Your task to perform on an android device: set the stopwatch Image 0: 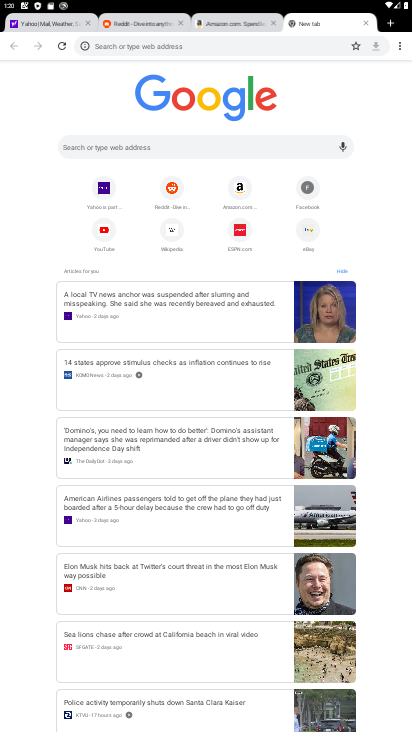
Step 0: press home button
Your task to perform on an android device: set the stopwatch Image 1: 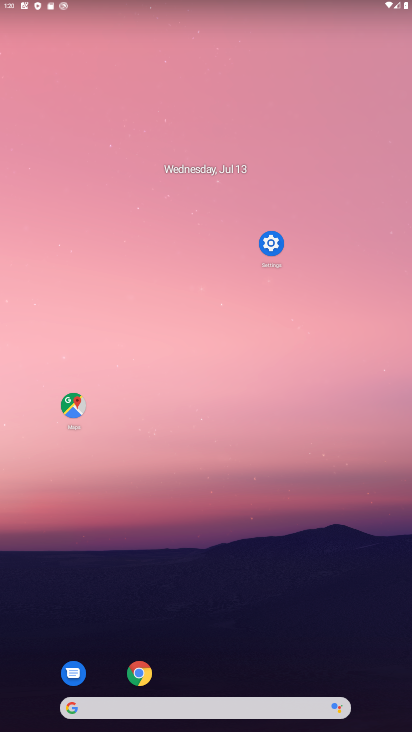
Step 1: drag from (198, 689) to (198, 24)
Your task to perform on an android device: set the stopwatch Image 2: 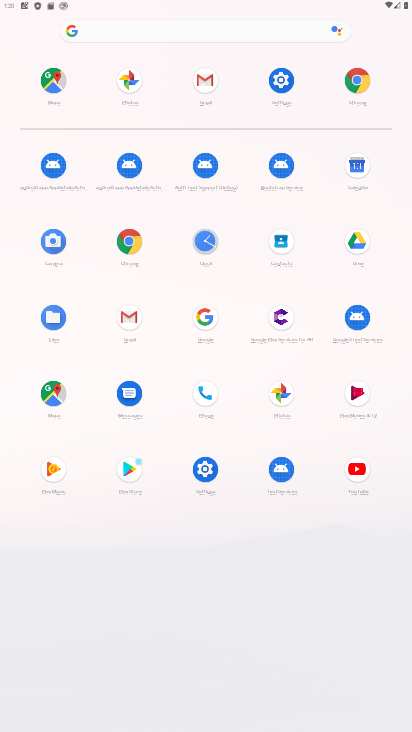
Step 2: click (210, 233)
Your task to perform on an android device: set the stopwatch Image 3: 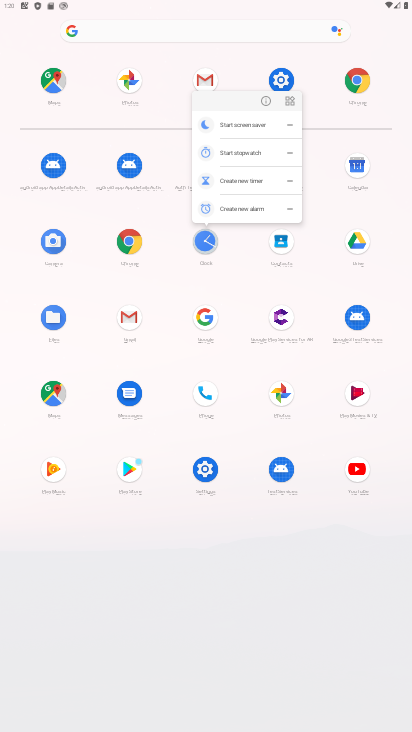
Step 3: click (206, 244)
Your task to perform on an android device: set the stopwatch Image 4: 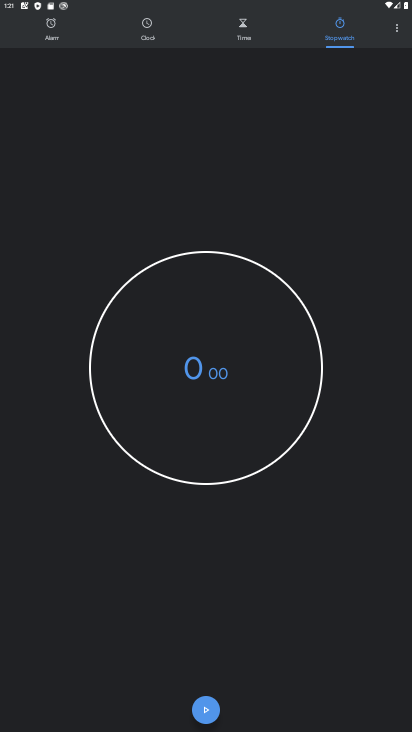
Step 4: task complete